Your task to perform on an android device: delete browsing data in the chrome app Image 0: 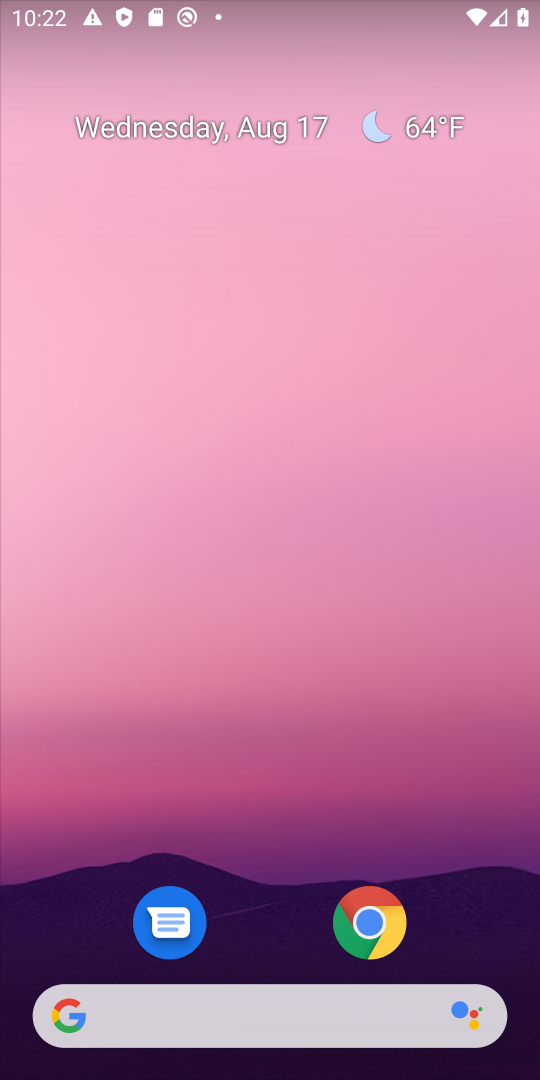
Step 0: drag from (221, 851) to (120, 27)
Your task to perform on an android device: delete browsing data in the chrome app Image 1: 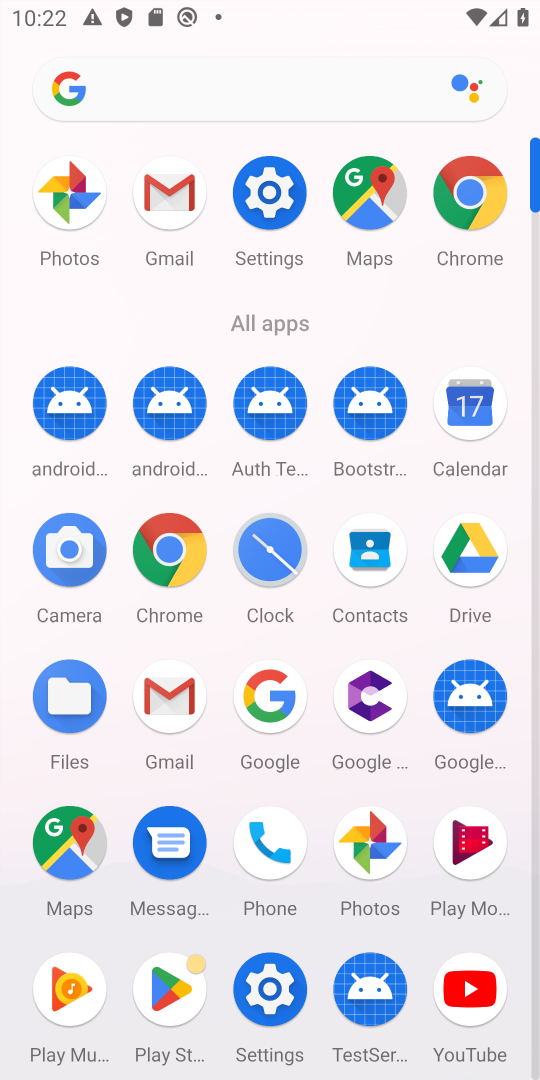
Step 1: click (169, 556)
Your task to perform on an android device: delete browsing data in the chrome app Image 2: 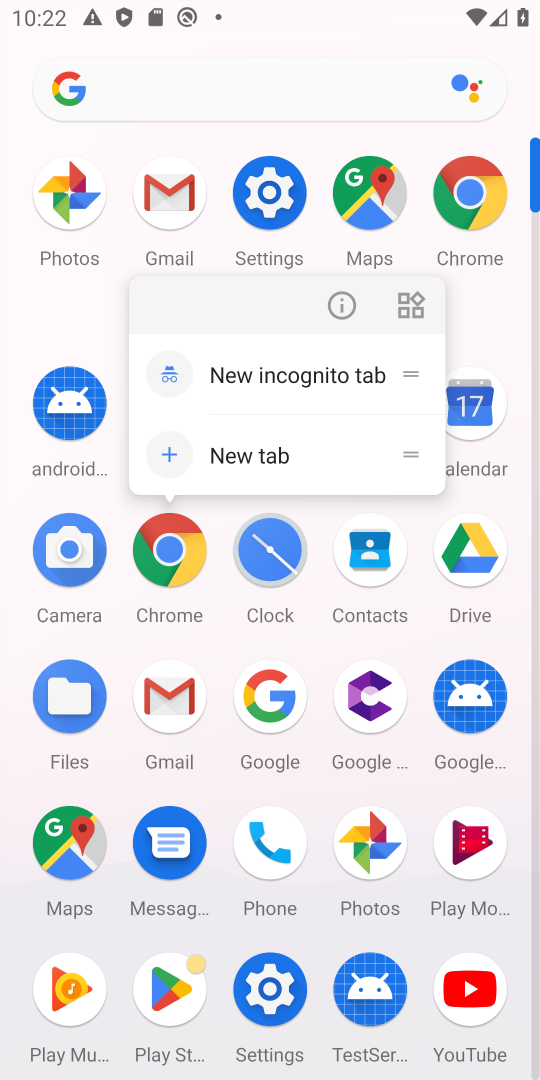
Step 2: click (169, 553)
Your task to perform on an android device: delete browsing data in the chrome app Image 3: 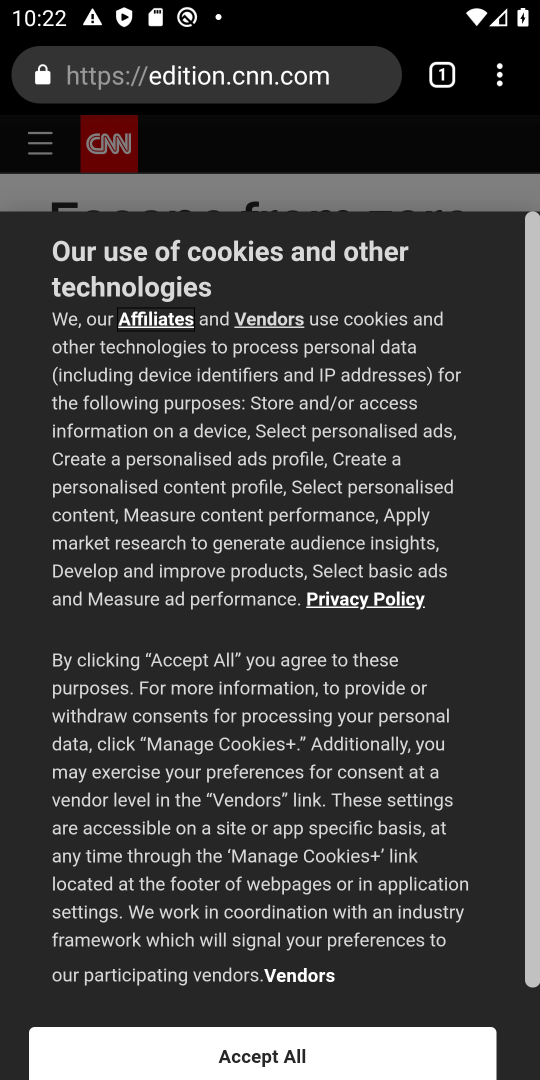
Step 3: drag from (497, 65) to (252, 425)
Your task to perform on an android device: delete browsing data in the chrome app Image 4: 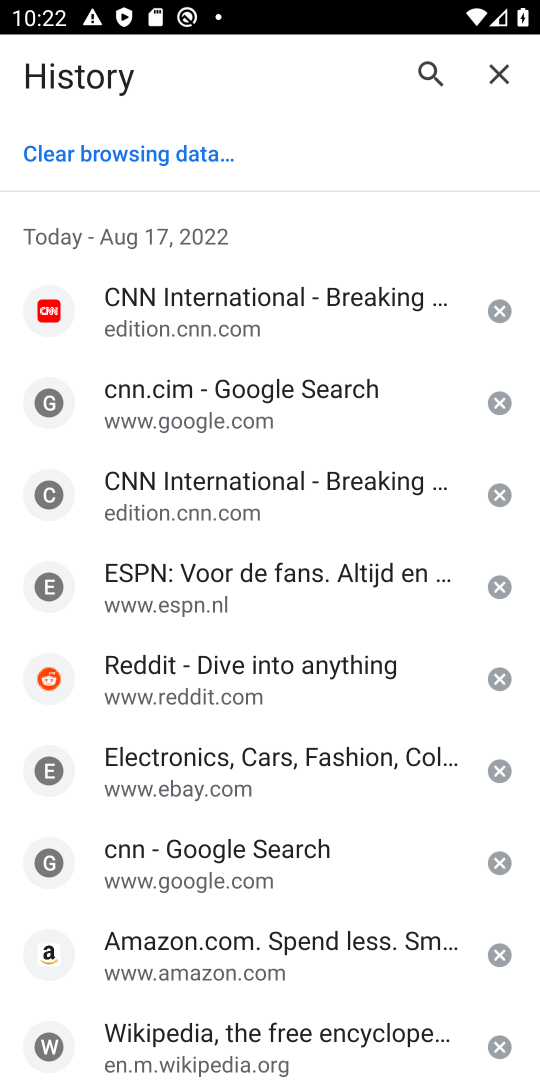
Step 4: click (190, 177)
Your task to perform on an android device: delete browsing data in the chrome app Image 5: 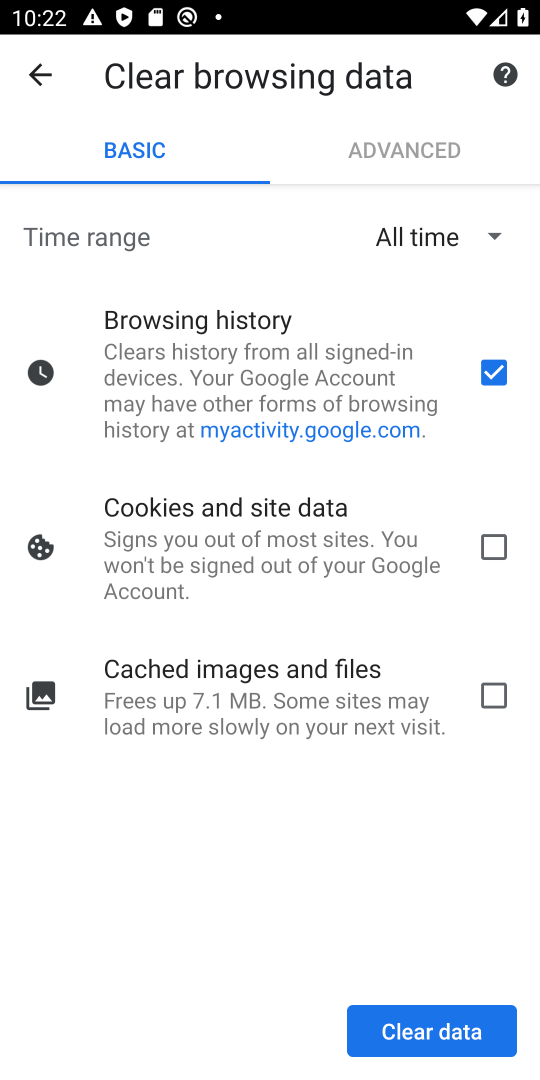
Step 5: click (495, 542)
Your task to perform on an android device: delete browsing data in the chrome app Image 6: 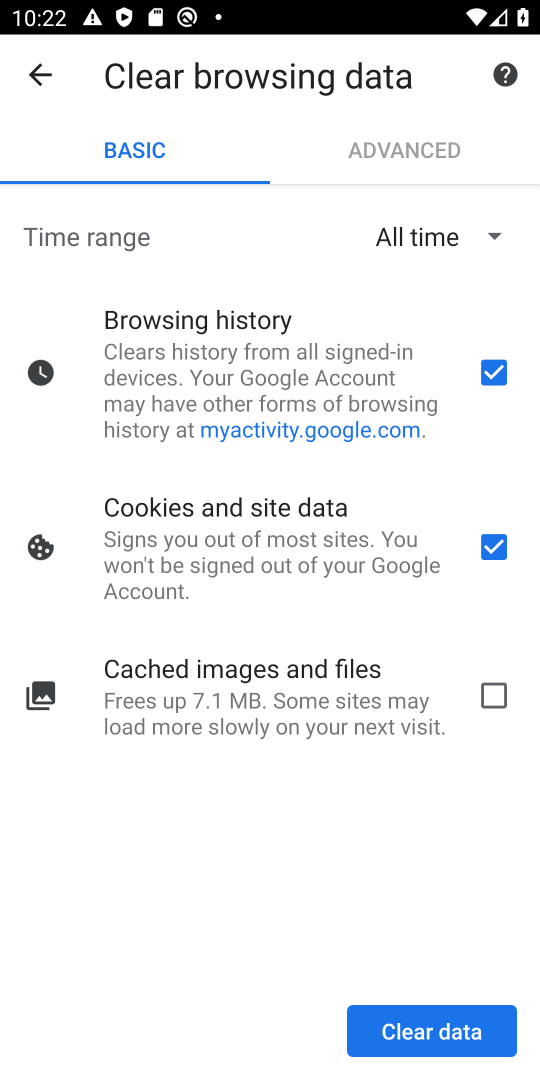
Step 6: click (484, 681)
Your task to perform on an android device: delete browsing data in the chrome app Image 7: 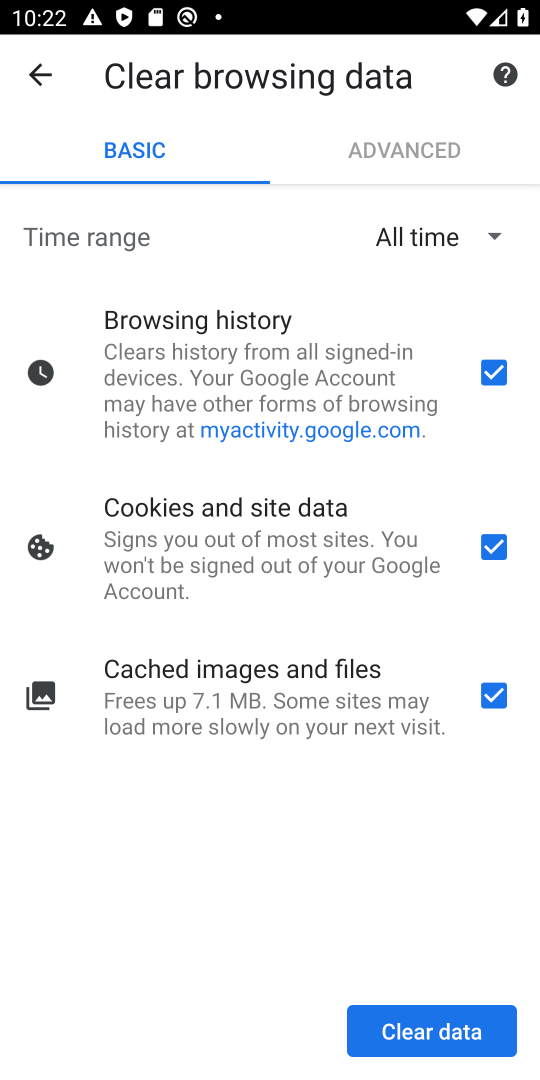
Step 7: click (428, 1040)
Your task to perform on an android device: delete browsing data in the chrome app Image 8: 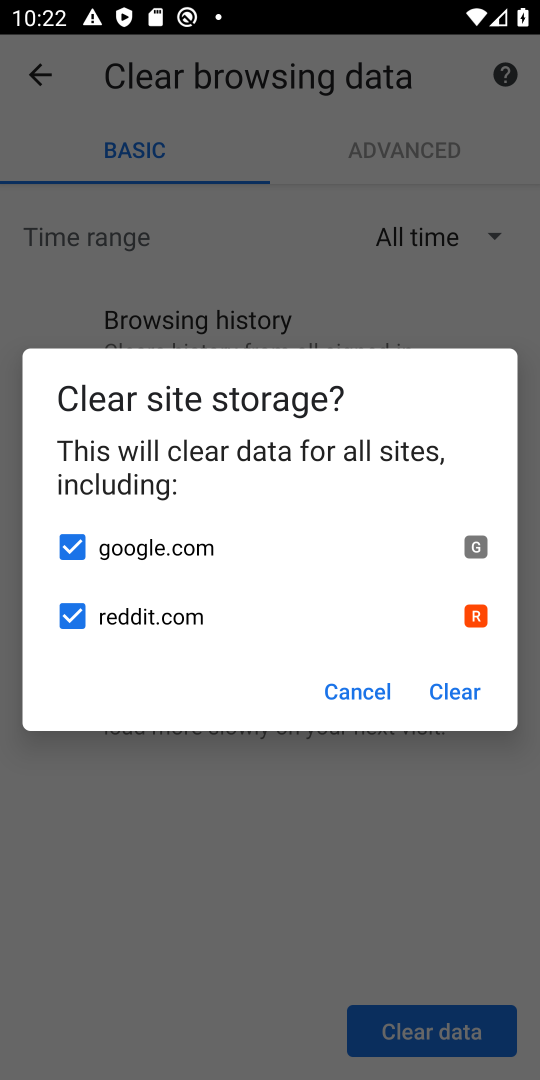
Step 8: click (465, 715)
Your task to perform on an android device: delete browsing data in the chrome app Image 9: 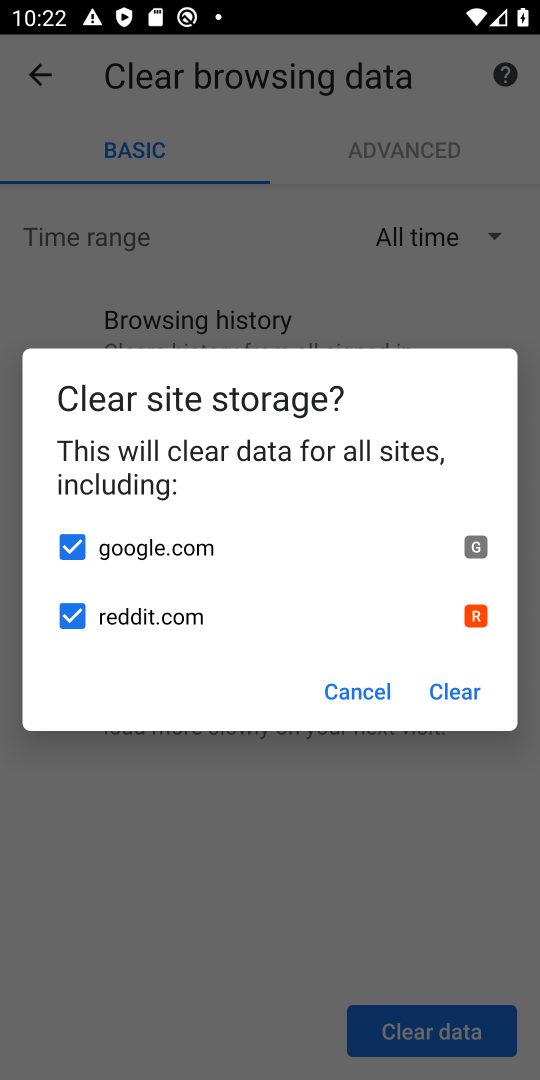
Step 9: click (465, 698)
Your task to perform on an android device: delete browsing data in the chrome app Image 10: 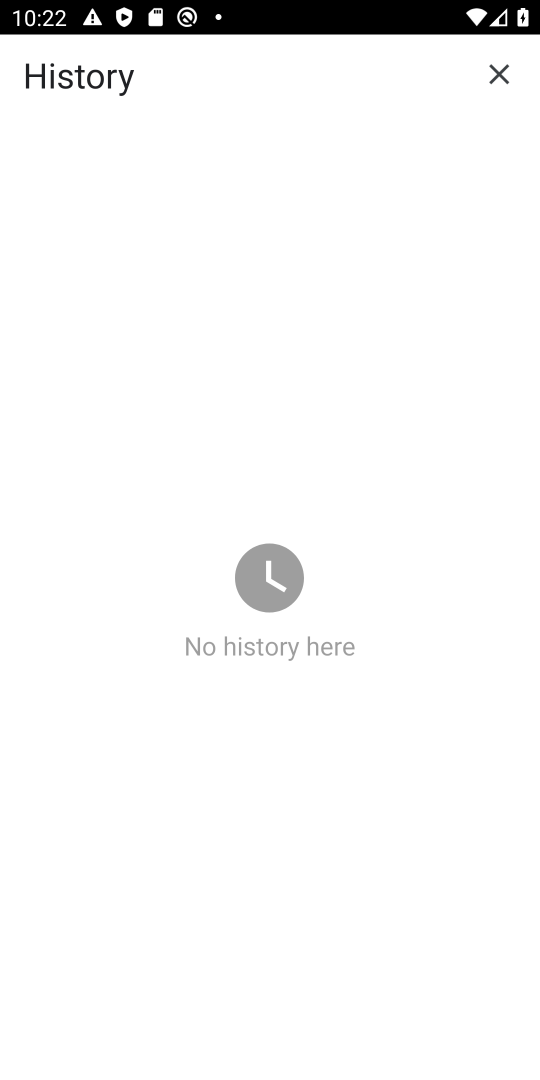
Step 10: task complete